Your task to perform on an android device: change the clock display to analog Image 0: 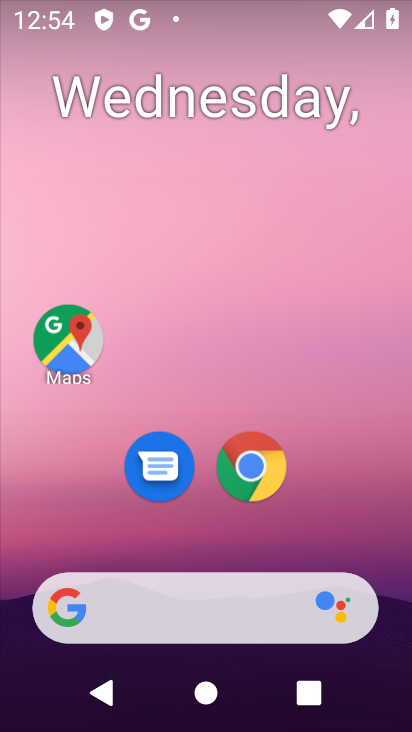
Step 0: drag from (339, 459) to (288, 140)
Your task to perform on an android device: change the clock display to analog Image 1: 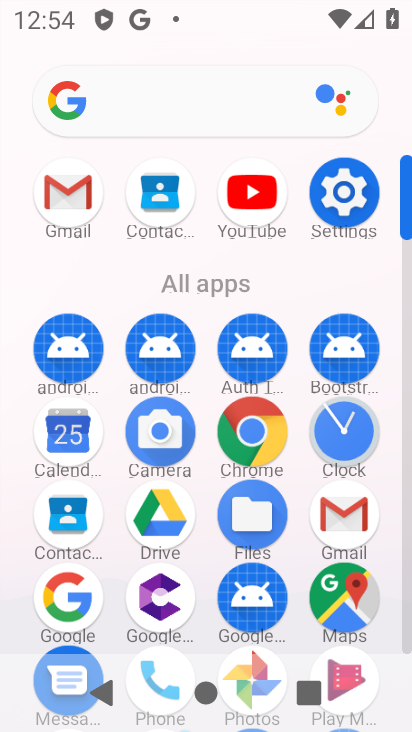
Step 1: click (344, 432)
Your task to perform on an android device: change the clock display to analog Image 2: 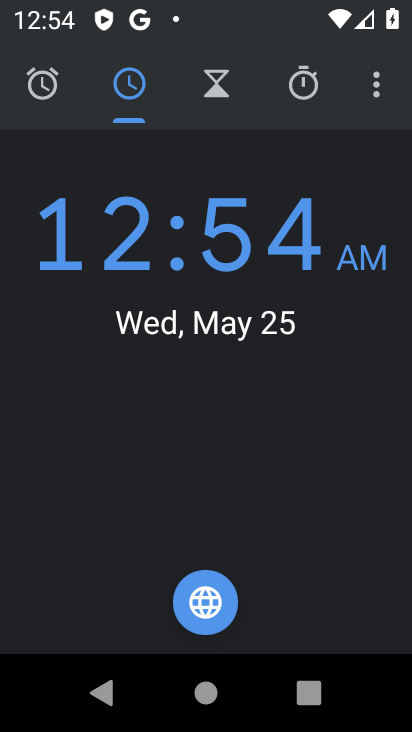
Step 2: click (383, 97)
Your task to perform on an android device: change the clock display to analog Image 3: 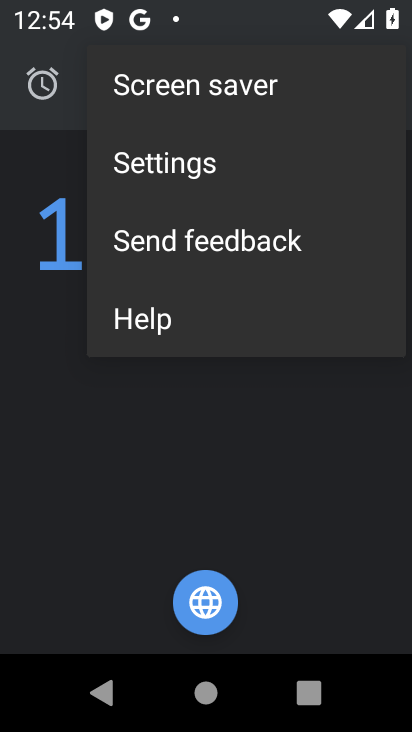
Step 3: click (297, 137)
Your task to perform on an android device: change the clock display to analog Image 4: 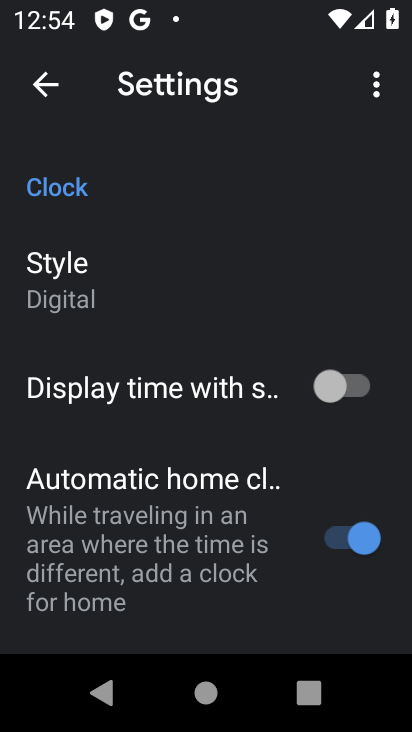
Step 4: click (184, 258)
Your task to perform on an android device: change the clock display to analog Image 5: 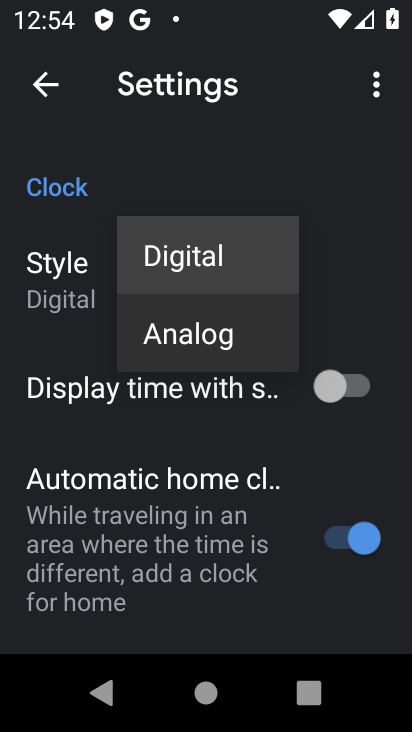
Step 5: click (203, 335)
Your task to perform on an android device: change the clock display to analog Image 6: 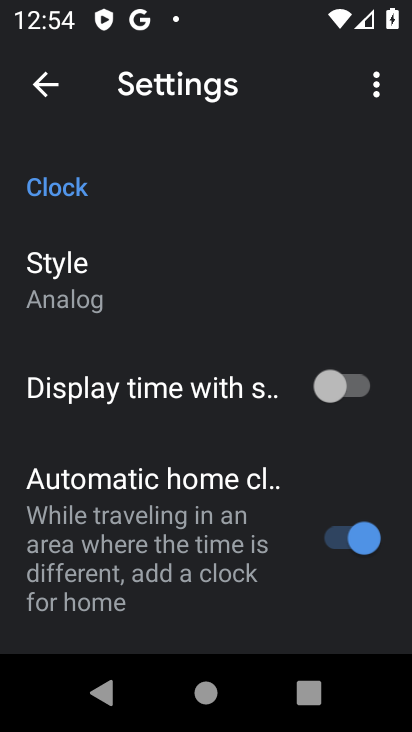
Step 6: task complete